Your task to perform on an android device: Open Maps and search for coffee Image 0: 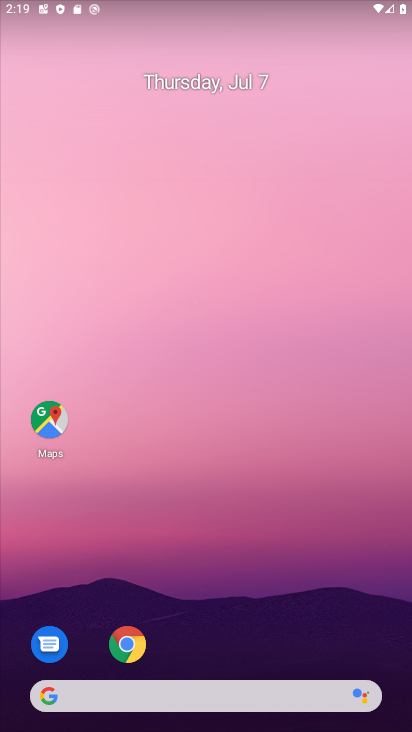
Step 0: press home button
Your task to perform on an android device: Open Maps and search for coffee Image 1: 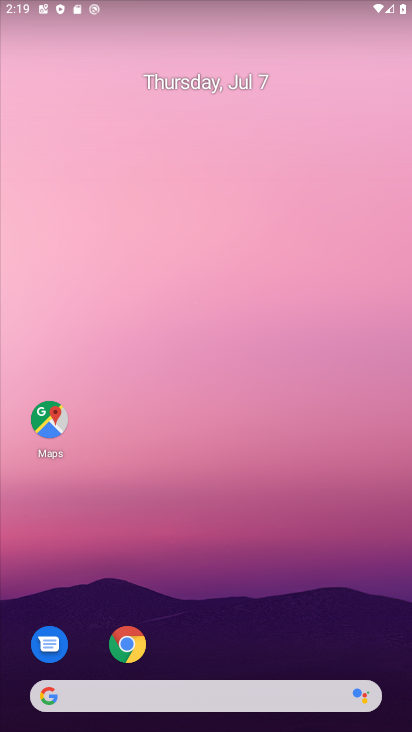
Step 1: click (49, 422)
Your task to perform on an android device: Open Maps and search for coffee Image 2: 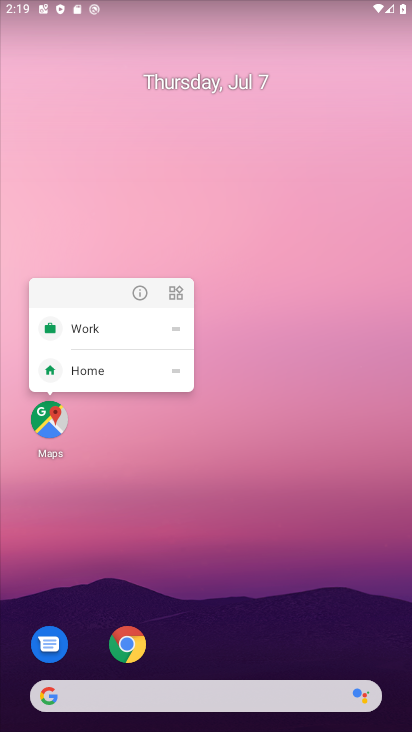
Step 2: drag from (358, 536) to (274, 46)
Your task to perform on an android device: Open Maps and search for coffee Image 3: 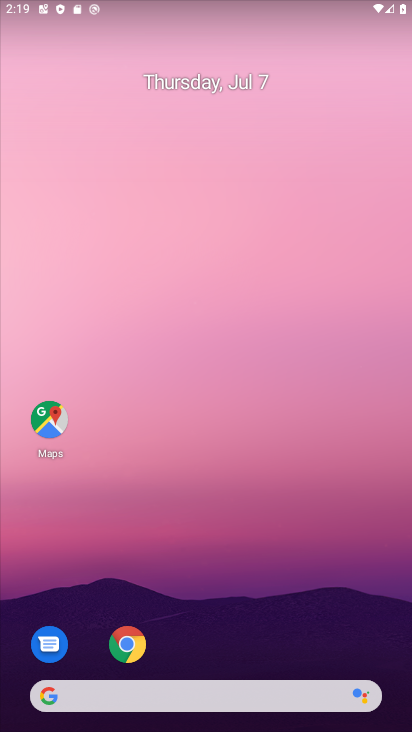
Step 3: drag from (278, 652) to (246, 114)
Your task to perform on an android device: Open Maps and search for coffee Image 4: 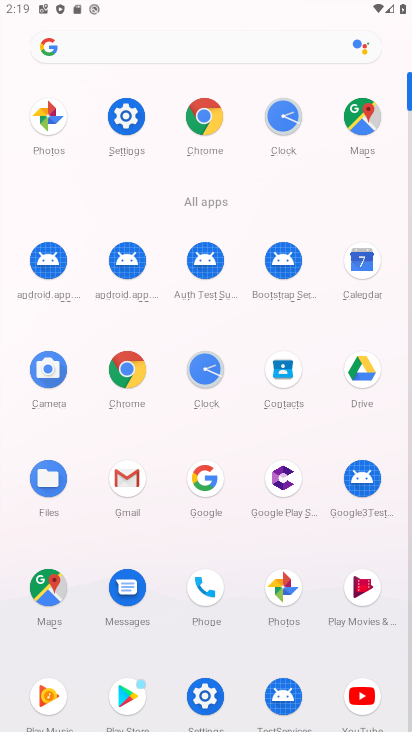
Step 4: click (362, 121)
Your task to perform on an android device: Open Maps and search for coffee Image 5: 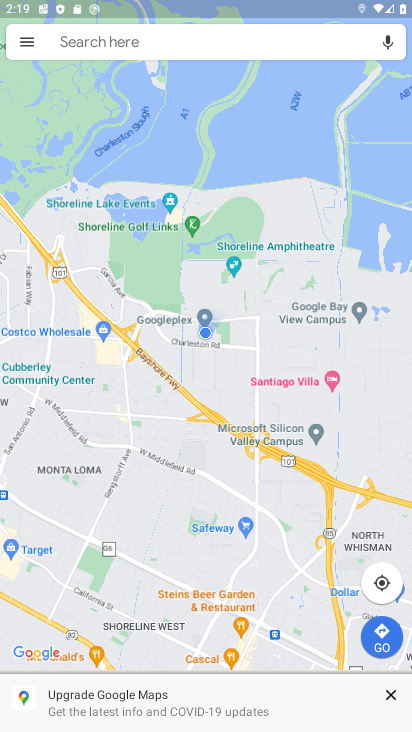
Step 5: click (163, 43)
Your task to perform on an android device: Open Maps and search for coffee Image 6: 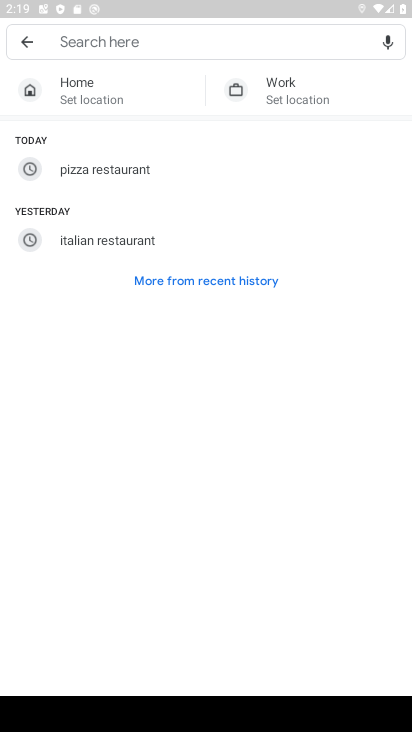
Step 6: type "coffee"
Your task to perform on an android device: Open Maps and search for coffee Image 7: 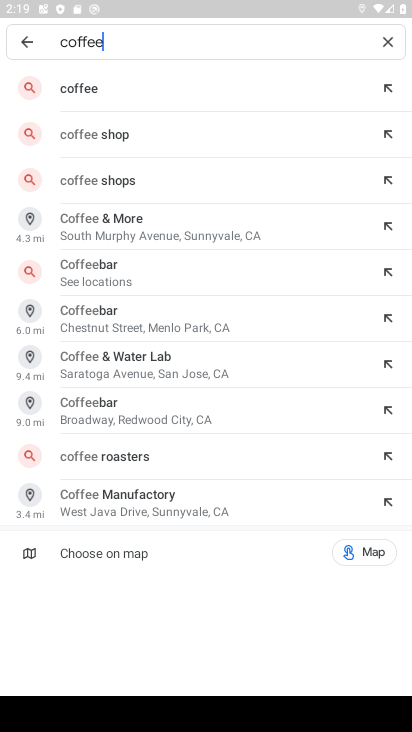
Step 7: click (81, 88)
Your task to perform on an android device: Open Maps and search for coffee Image 8: 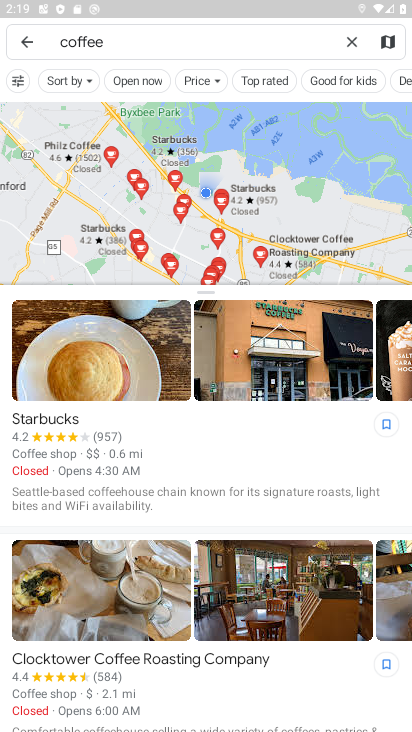
Step 8: task complete